Your task to perform on an android device: When is my next appointment? Image 0: 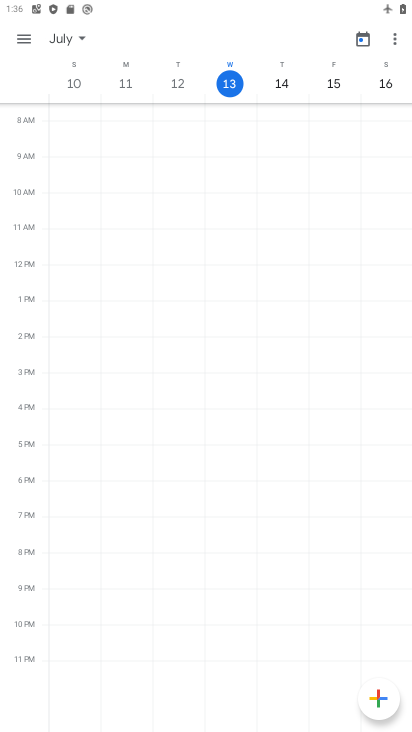
Step 0: task complete